Your task to perform on an android device: delete browsing data in the chrome app Image 0: 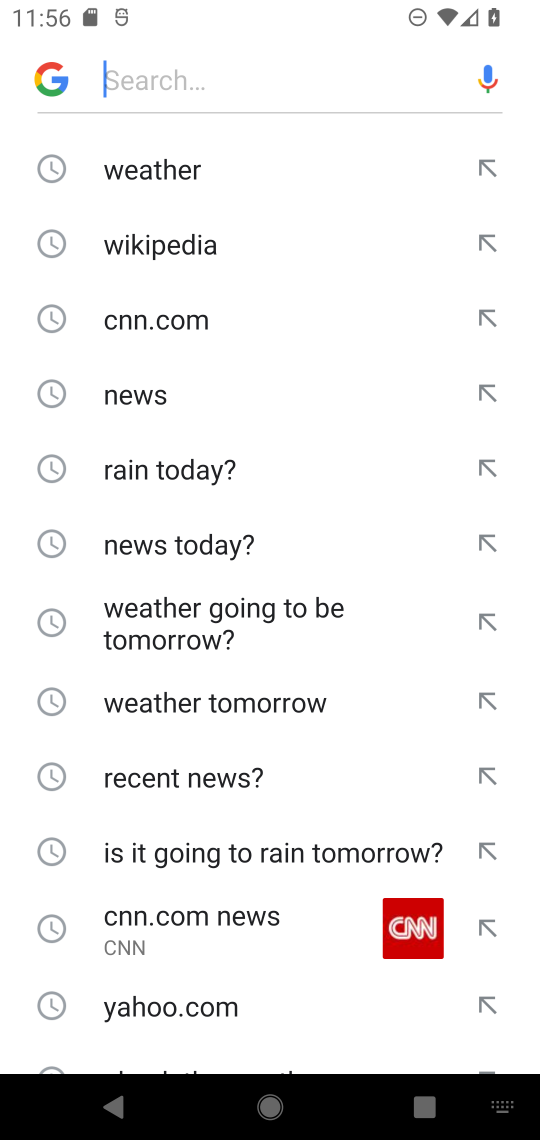
Step 0: press home button
Your task to perform on an android device: delete browsing data in the chrome app Image 1: 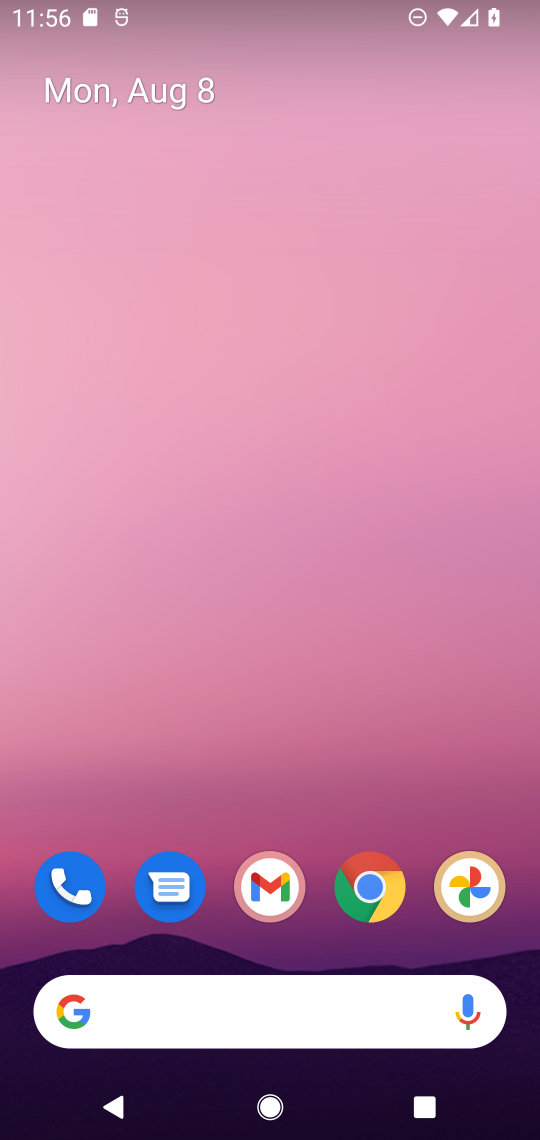
Step 1: click (370, 885)
Your task to perform on an android device: delete browsing data in the chrome app Image 2: 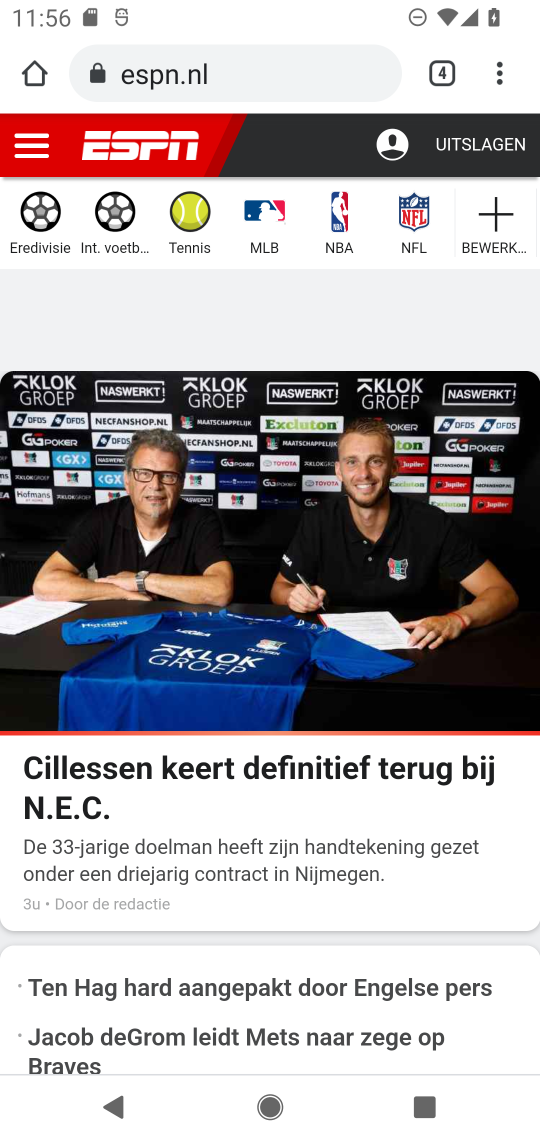
Step 2: click (506, 67)
Your task to perform on an android device: delete browsing data in the chrome app Image 3: 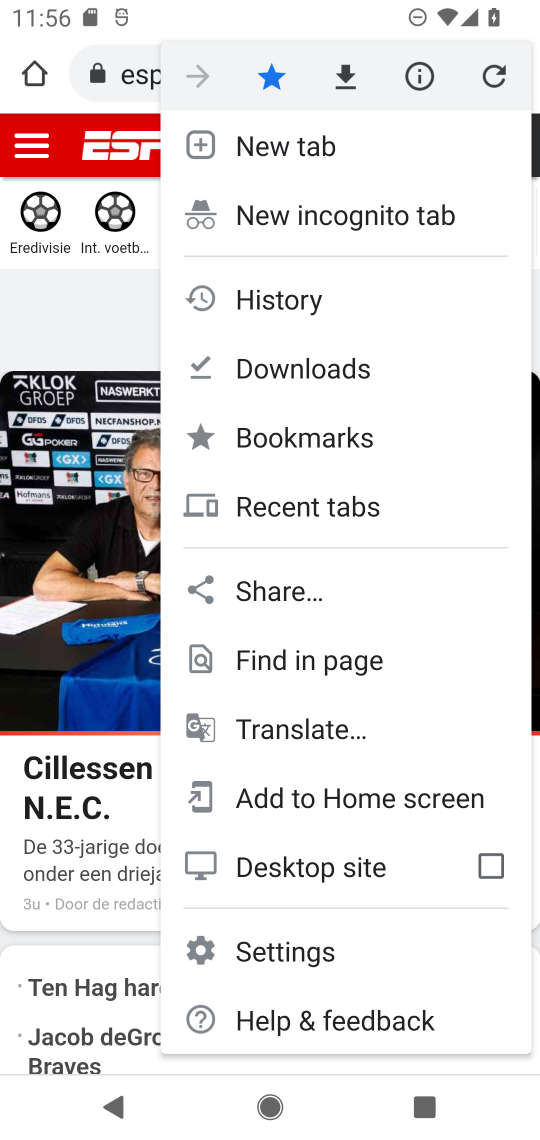
Step 3: click (285, 301)
Your task to perform on an android device: delete browsing data in the chrome app Image 4: 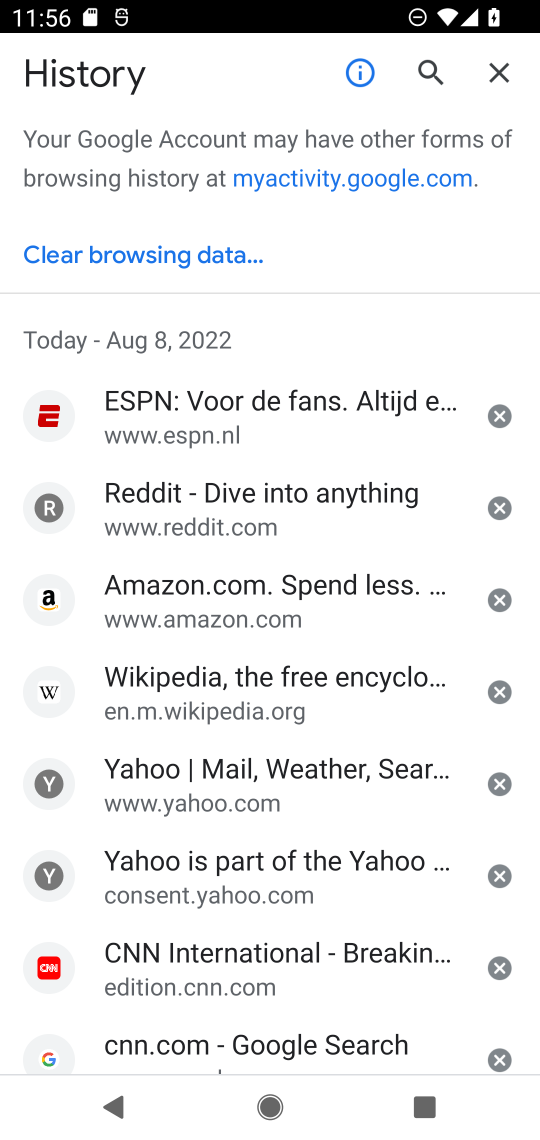
Step 4: click (161, 250)
Your task to perform on an android device: delete browsing data in the chrome app Image 5: 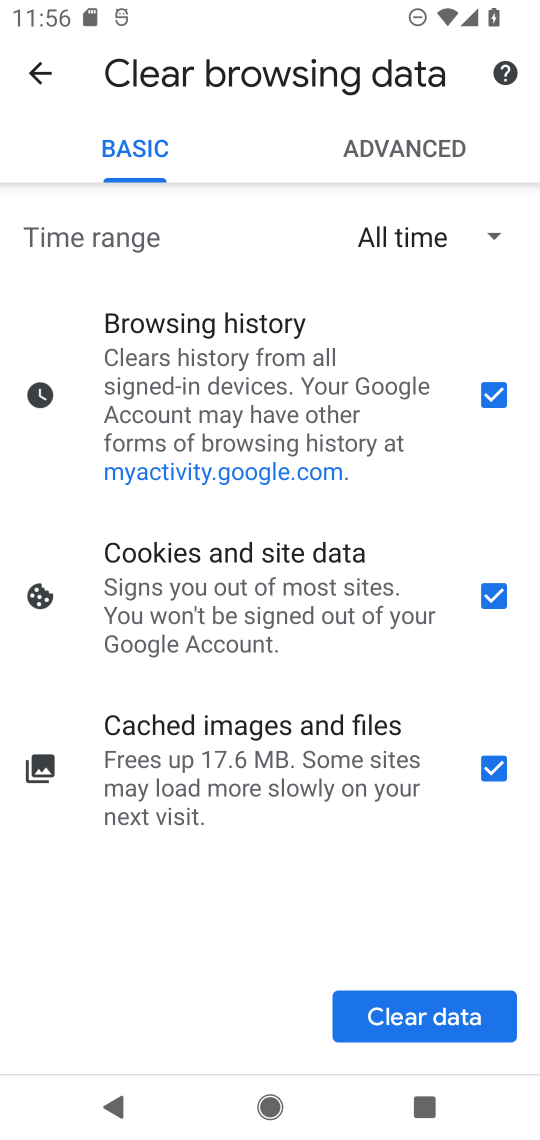
Step 5: click (423, 1012)
Your task to perform on an android device: delete browsing data in the chrome app Image 6: 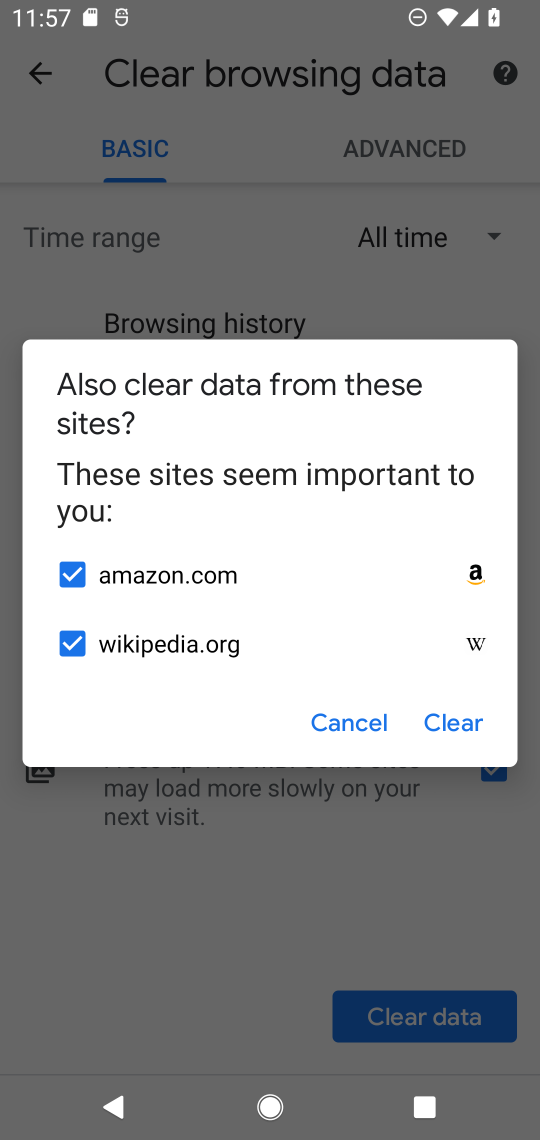
Step 6: click (452, 720)
Your task to perform on an android device: delete browsing data in the chrome app Image 7: 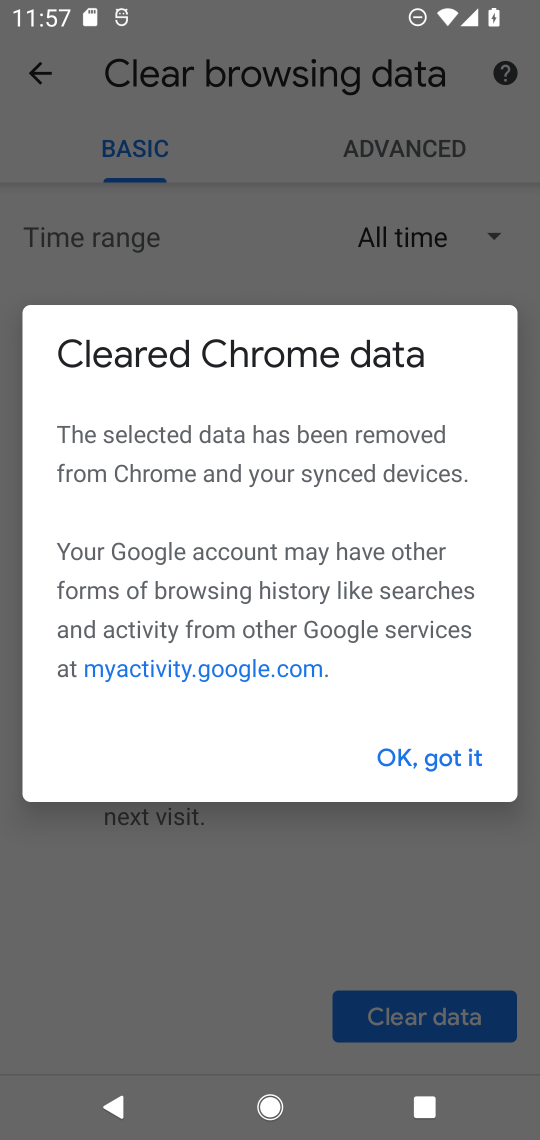
Step 7: click (440, 757)
Your task to perform on an android device: delete browsing data in the chrome app Image 8: 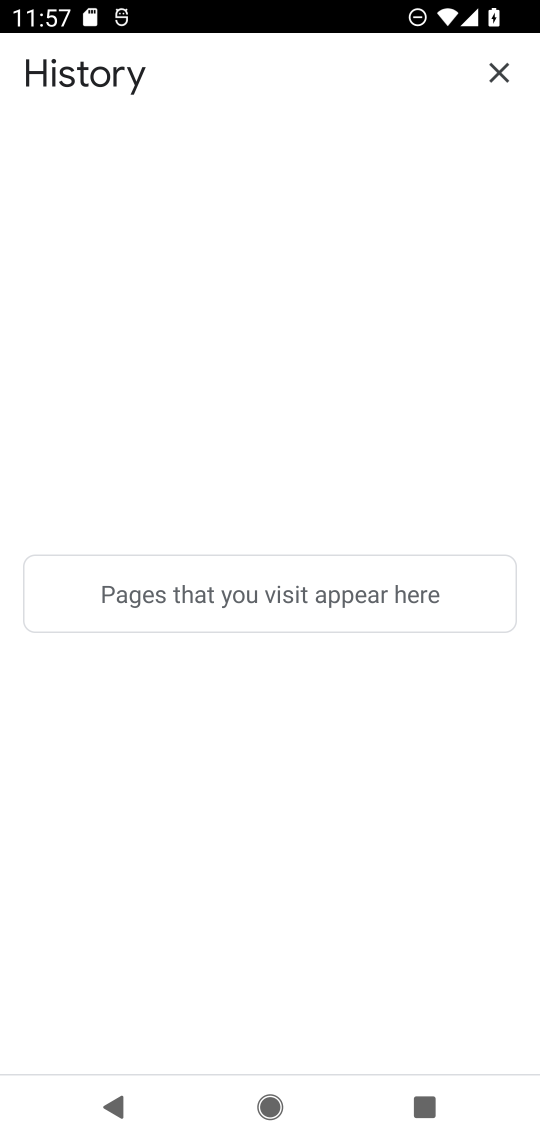
Step 8: task complete